Your task to perform on an android device: What is the recent news? Image 0: 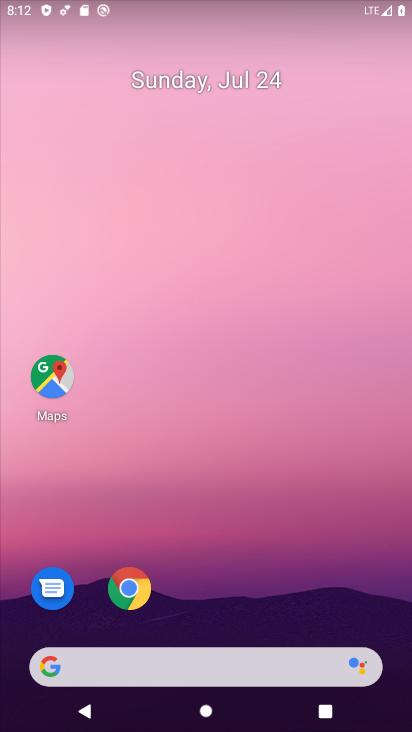
Step 0: drag from (2, 276) to (386, 273)
Your task to perform on an android device: What is the recent news? Image 1: 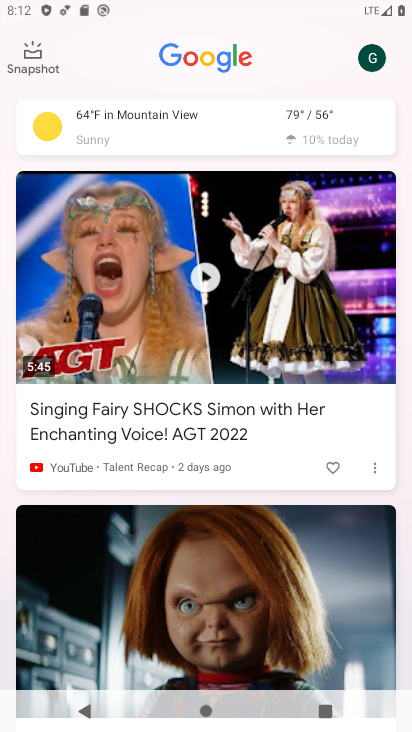
Step 1: task complete